Your task to perform on an android device: Go to Amazon Image 0: 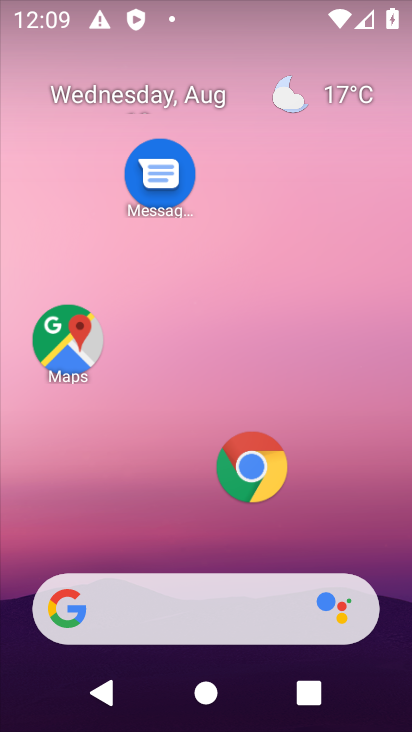
Step 0: click (257, 601)
Your task to perform on an android device: Go to Amazon Image 1: 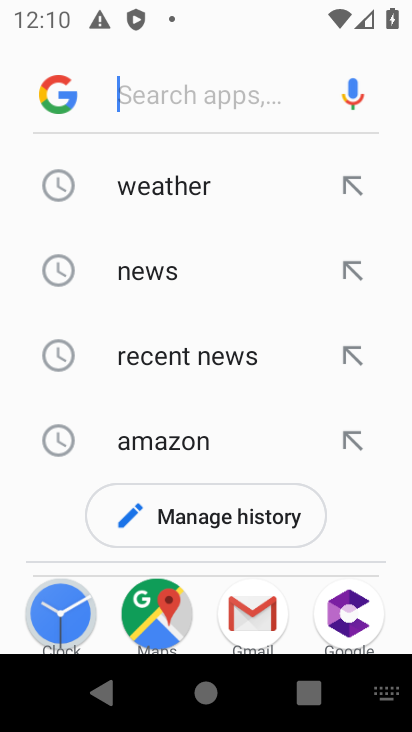
Step 1: click (244, 447)
Your task to perform on an android device: Go to Amazon Image 2: 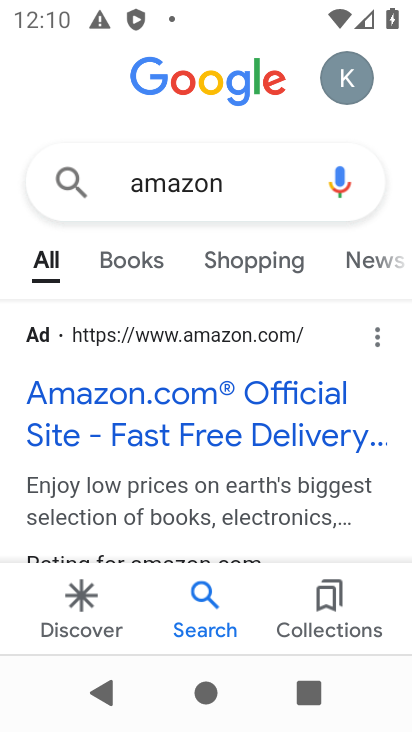
Step 2: click (212, 427)
Your task to perform on an android device: Go to Amazon Image 3: 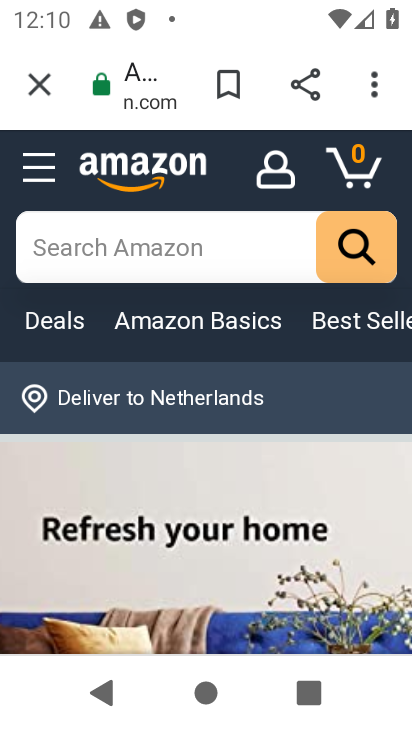
Step 3: task complete